Your task to perform on an android device: open chrome privacy settings Image 0: 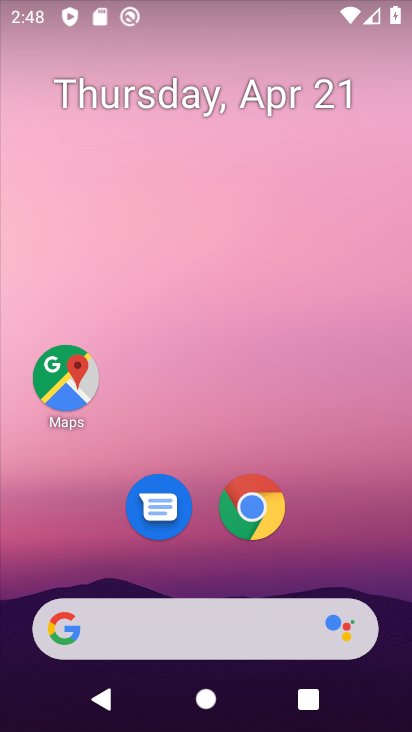
Step 0: drag from (322, 583) to (322, 210)
Your task to perform on an android device: open chrome privacy settings Image 1: 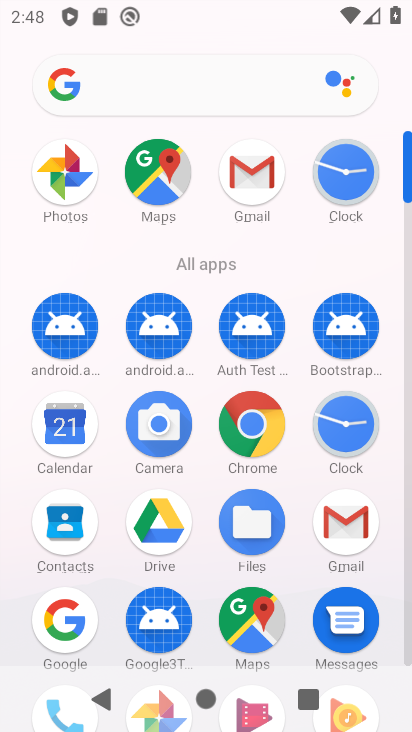
Step 1: drag from (312, 630) to (316, 348)
Your task to perform on an android device: open chrome privacy settings Image 2: 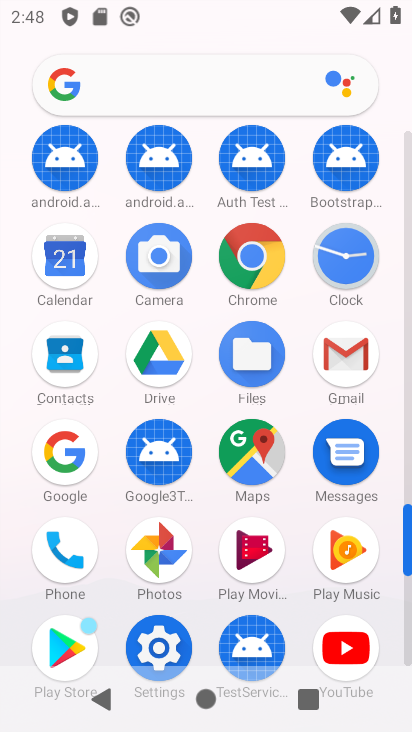
Step 2: click (162, 642)
Your task to perform on an android device: open chrome privacy settings Image 3: 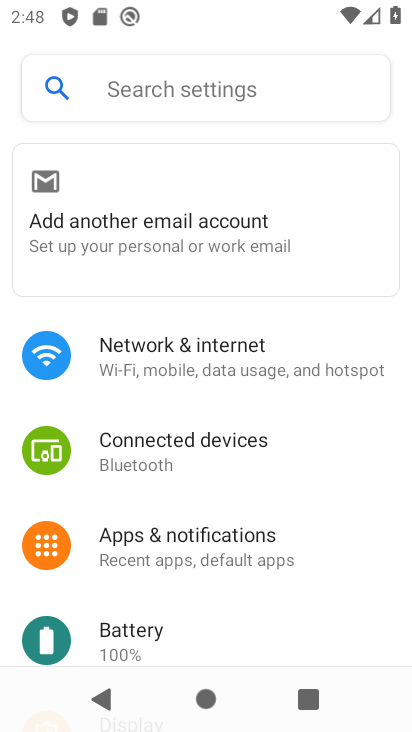
Step 3: drag from (257, 616) to (274, 335)
Your task to perform on an android device: open chrome privacy settings Image 4: 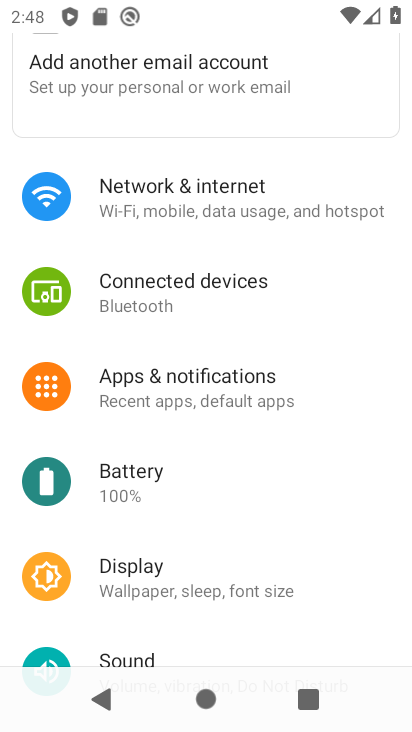
Step 4: drag from (254, 514) to (267, 270)
Your task to perform on an android device: open chrome privacy settings Image 5: 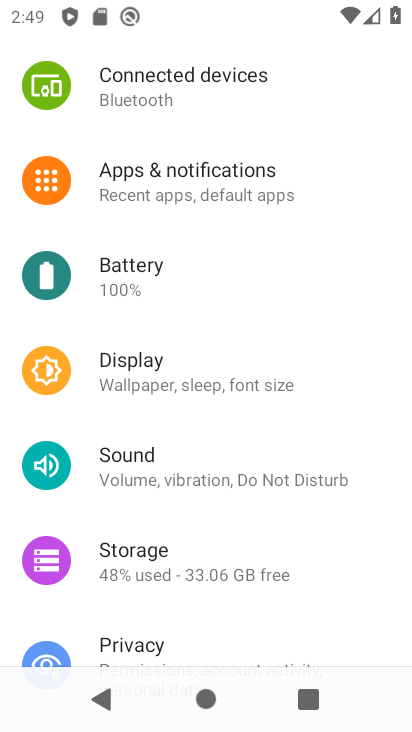
Step 5: click (155, 654)
Your task to perform on an android device: open chrome privacy settings Image 6: 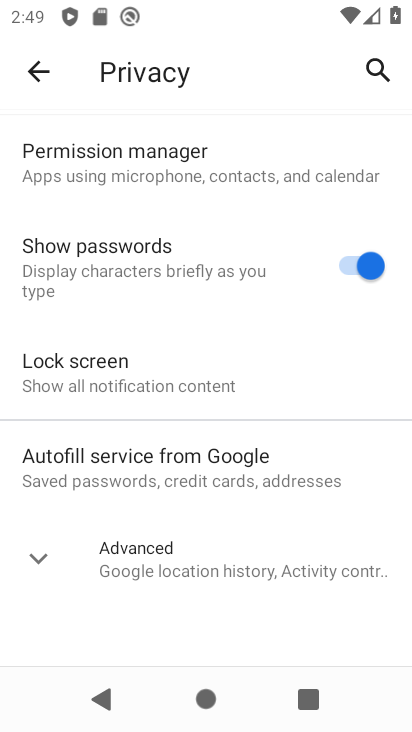
Step 6: task complete